Your task to perform on an android device: turn off sleep mode Image 0: 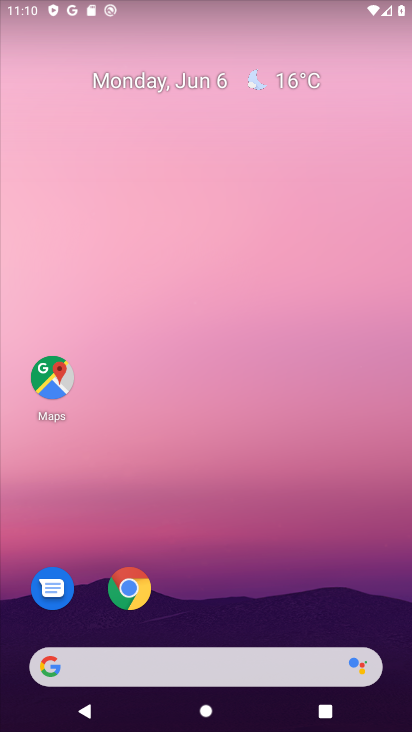
Step 0: drag from (317, 525) to (389, 44)
Your task to perform on an android device: turn off sleep mode Image 1: 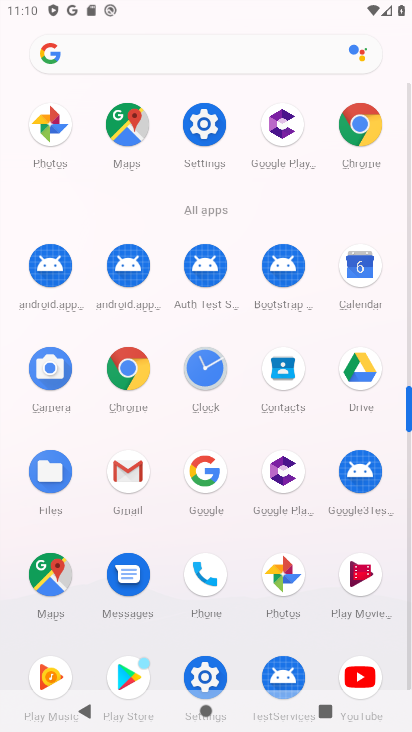
Step 1: click (200, 124)
Your task to perform on an android device: turn off sleep mode Image 2: 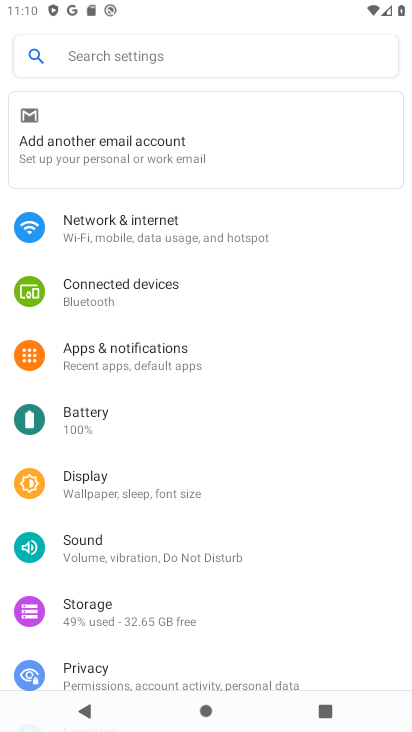
Step 2: click (190, 486)
Your task to perform on an android device: turn off sleep mode Image 3: 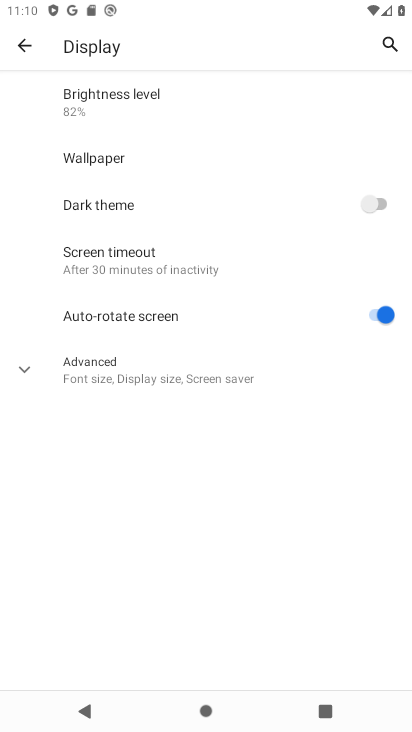
Step 3: click (137, 365)
Your task to perform on an android device: turn off sleep mode Image 4: 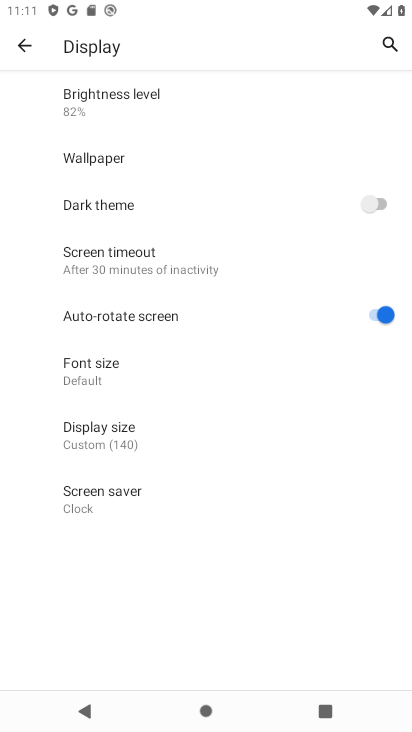
Step 4: task complete